Your task to perform on an android device: open app "Etsy: Buy & Sell Unique Items" (install if not already installed) Image 0: 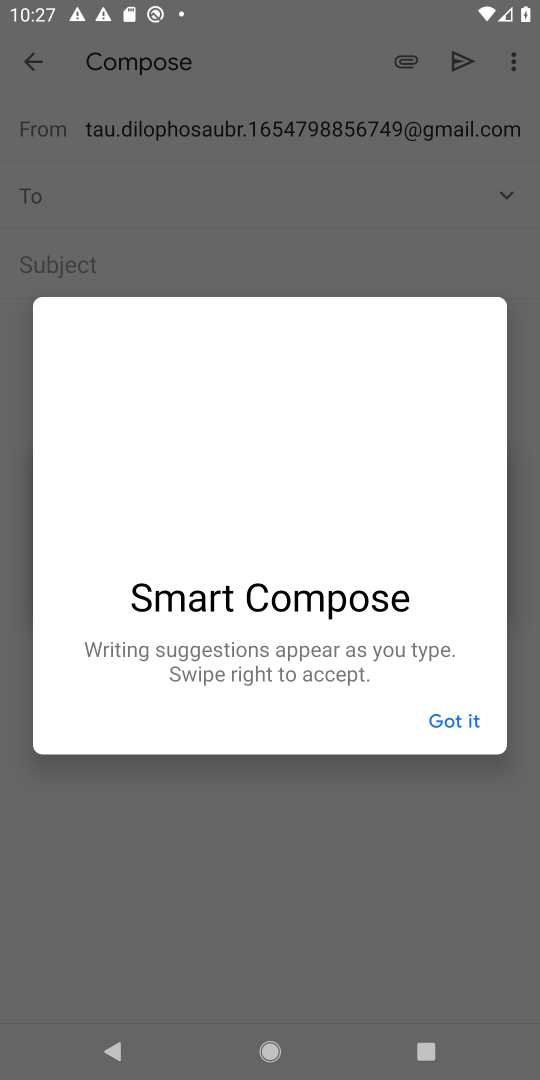
Step 0: press home button
Your task to perform on an android device: open app "Etsy: Buy & Sell Unique Items" (install if not already installed) Image 1: 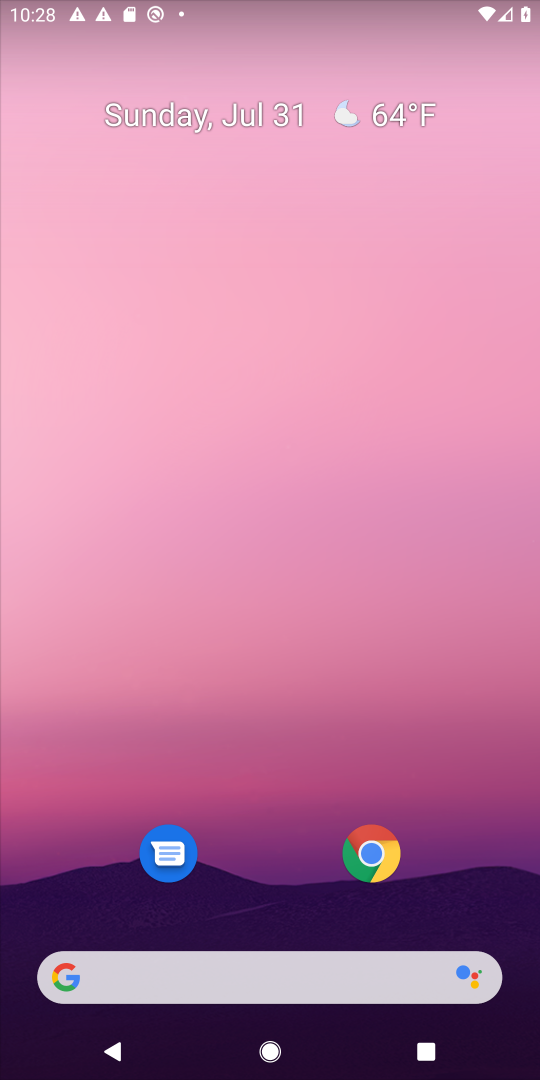
Step 1: drag from (307, 1043) to (316, 233)
Your task to perform on an android device: open app "Etsy: Buy & Sell Unique Items" (install if not already installed) Image 2: 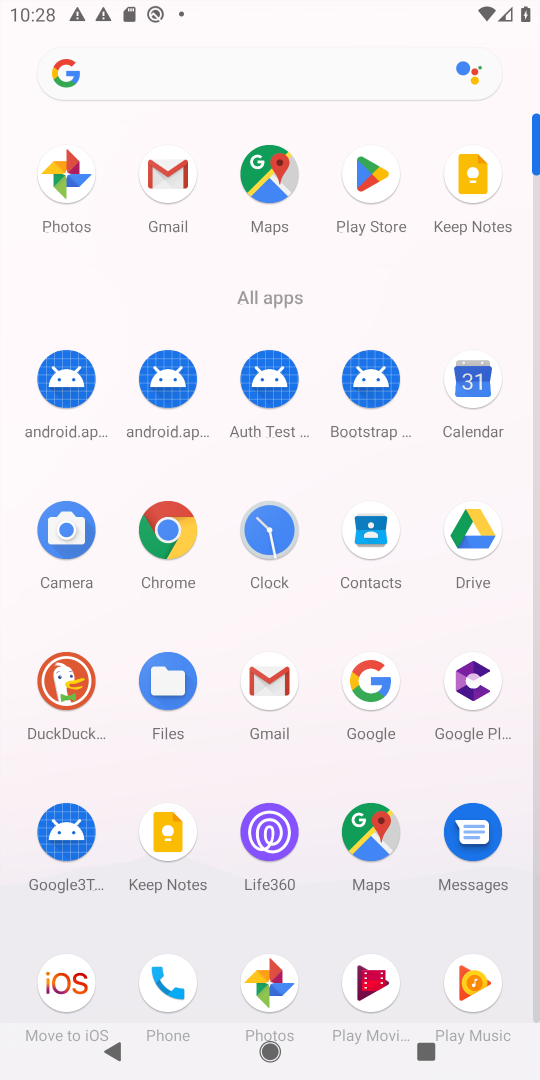
Step 2: click (375, 183)
Your task to perform on an android device: open app "Etsy: Buy & Sell Unique Items" (install if not already installed) Image 3: 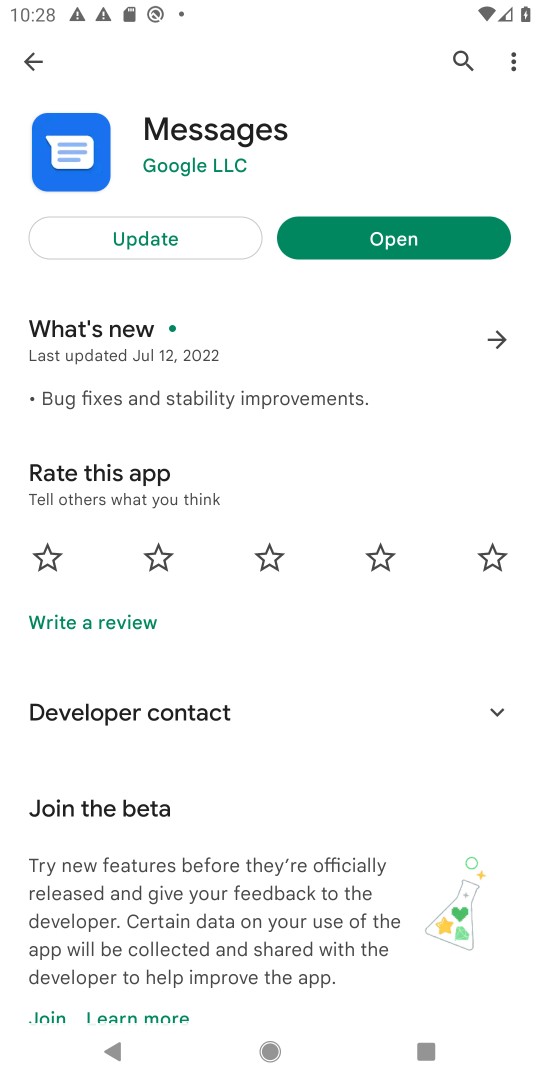
Step 3: click (466, 55)
Your task to perform on an android device: open app "Etsy: Buy & Sell Unique Items" (install if not already installed) Image 4: 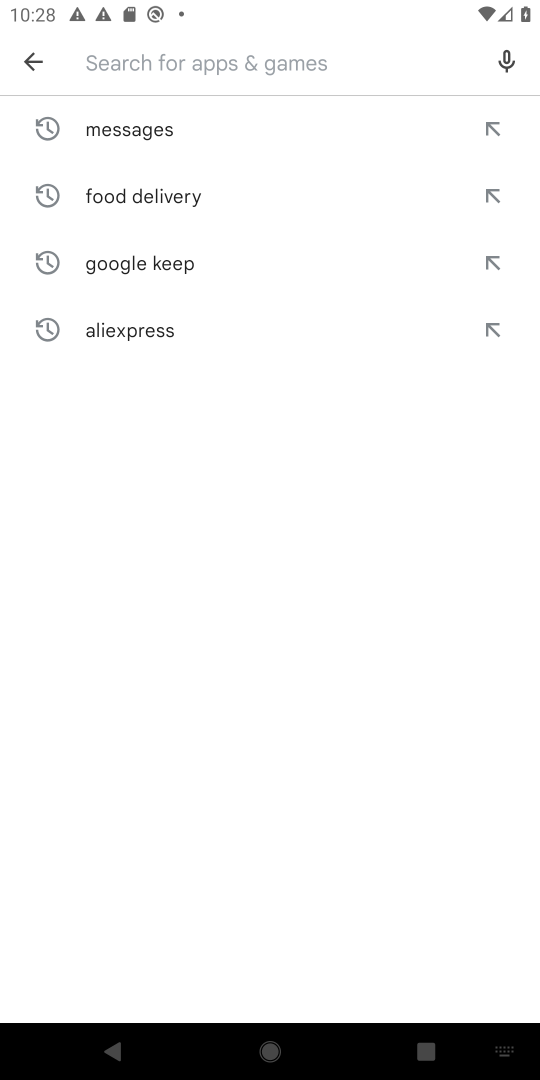
Step 4: type "Etsy: Buy & Sell Unique Items"
Your task to perform on an android device: open app "Etsy: Buy & Sell Unique Items" (install if not already installed) Image 5: 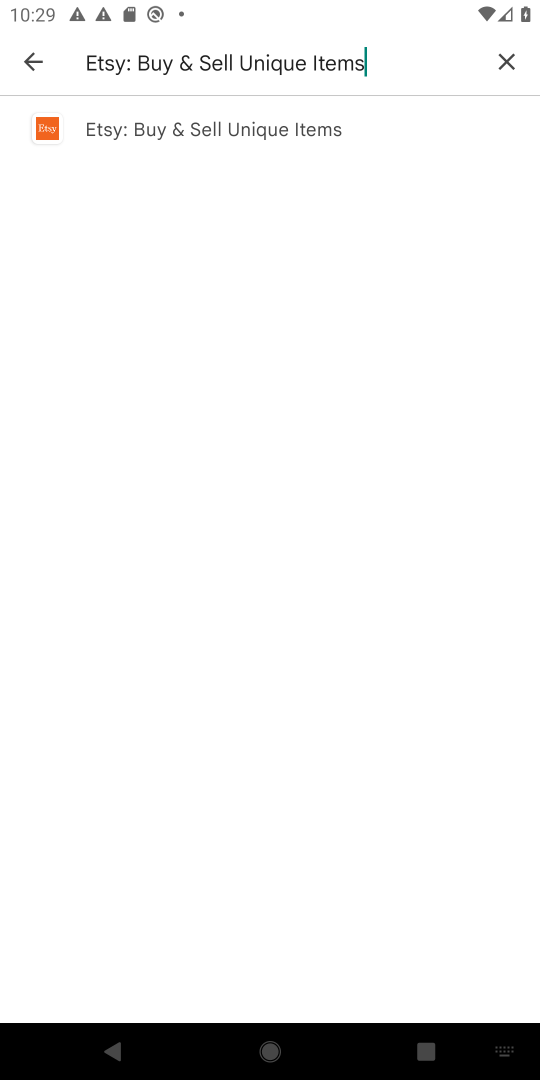
Step 5: click (197, 122)
Your task to perform on an android device: open app "Etsy: Buy & Sell Unique Items" (install if not already installed) Image 6: 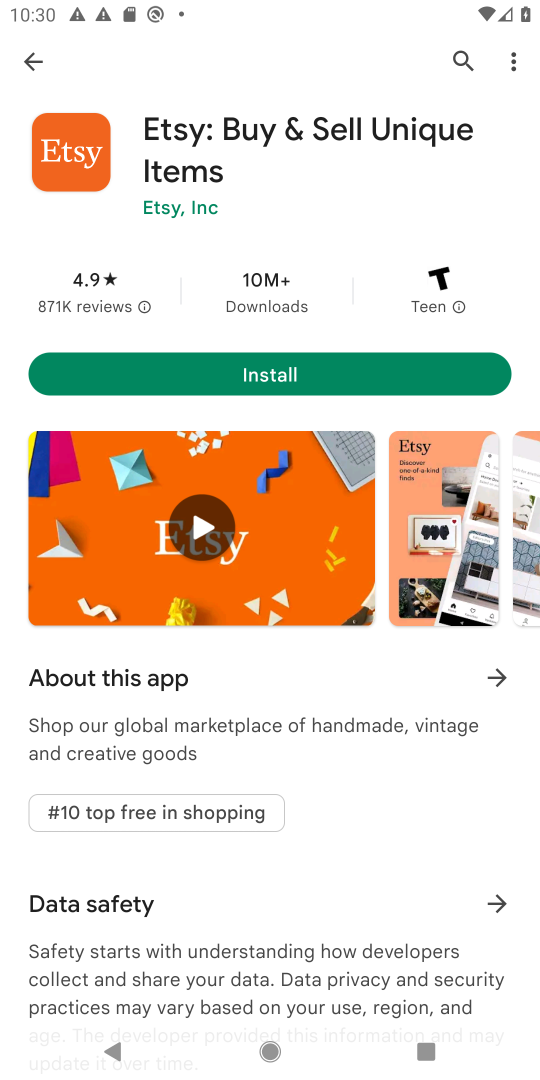
Step 6: click (305, 371)
Your task to perform on an android device: open app "Etsy: Buy & Sell Unique Items" (install if not already installed) Image 7: 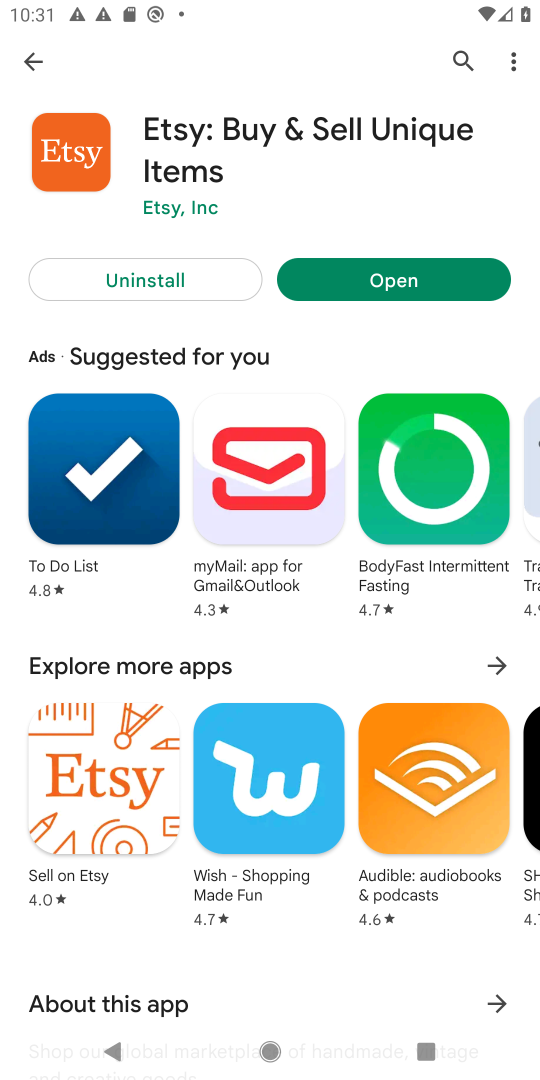
Step 7: task complete